Your task to perform on an android device: Open Android settings Image 0: 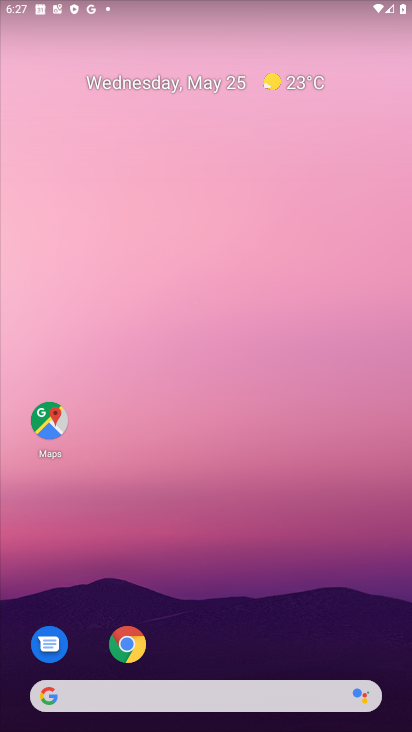
Step 0: drag from (391, 634) to (308, 87)
Your task to perform on an android device: Open Android settings Image 1: 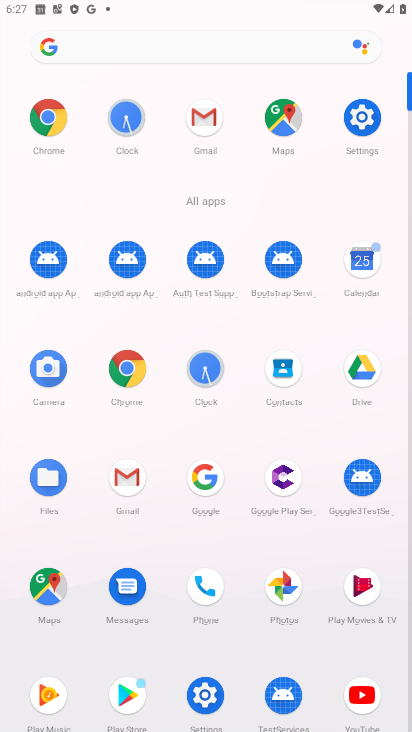
Step 1: click (361, 120)
Your task to perform on an android device: Open Android settings Image 2: 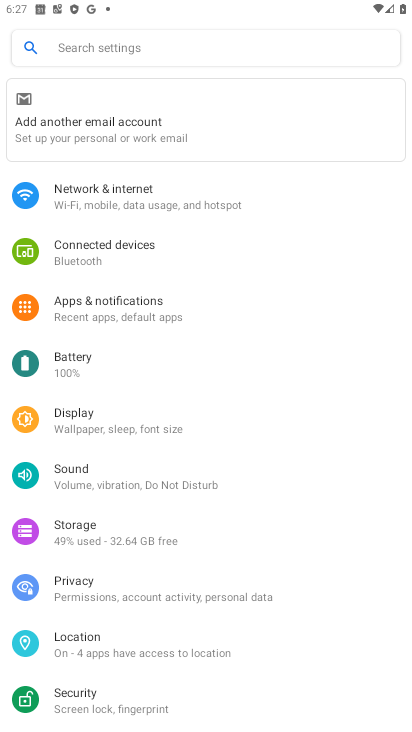
Step 2: drag from (90, 673) to (154, 2)
Your task to perform on an android device: Open Android settings Image 3: 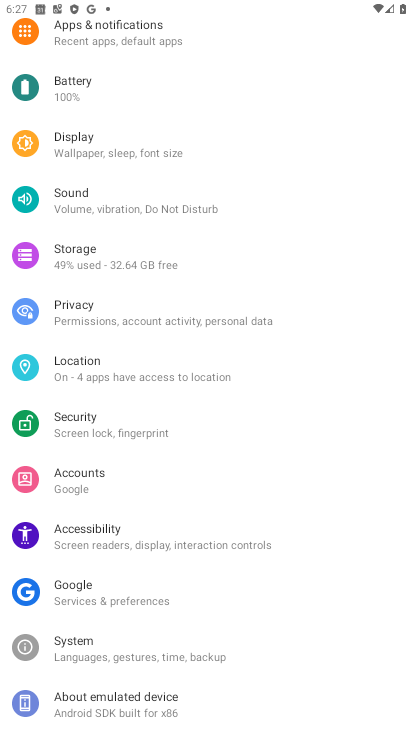
Step 3: click (123, 693)
Your task to perform on an android device: Open Android settings Image 4: 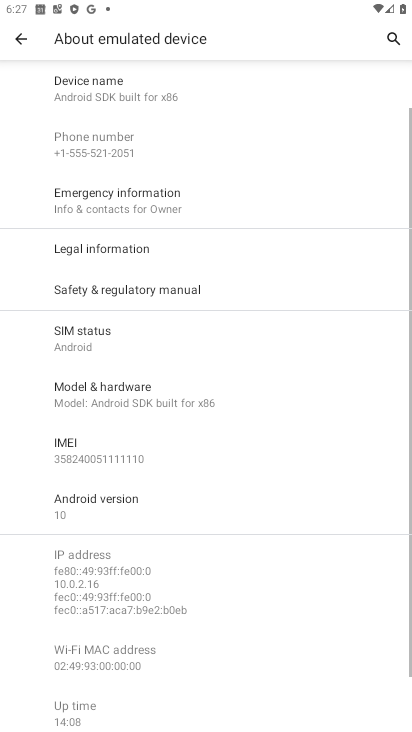
Step 4: click (133, 518)
Your task to perform on an android device: Open Android settings Image 5: 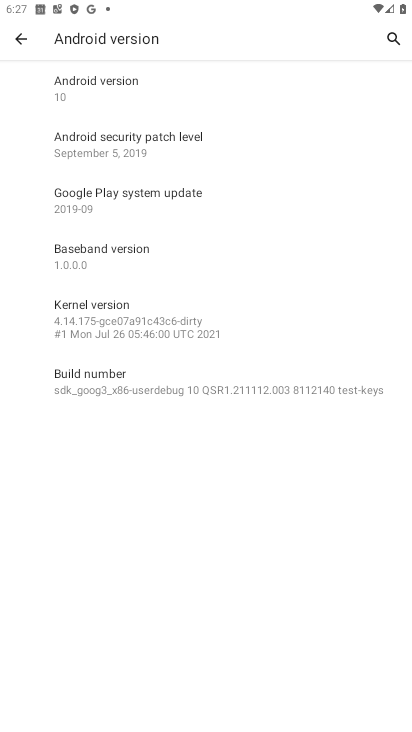
Step 5: task complete